Your task to perform on an android device: star an email in the gmail app Image 0: 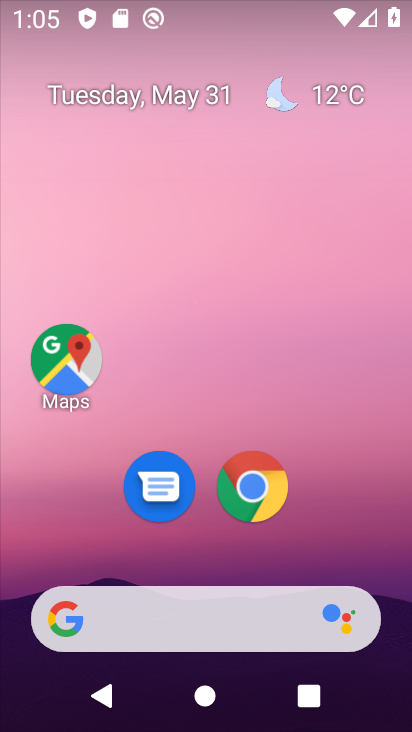
Step 0: drag from (196, 549) to (171, 183)
Your task to perform on an android device: star an email in the gmail app Image 1: 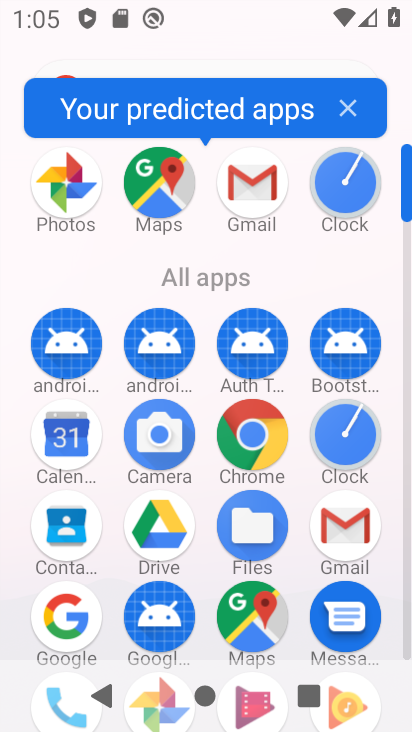
Step 1: click (244, 185)
Your task to perform on an android device: star an email in the gmail app Image 2: 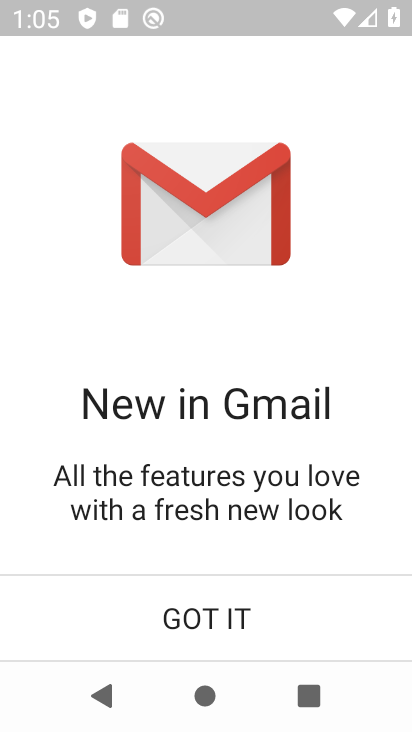
Step 2: click (197, 635)
Your task to perform on an android device: star an email in the gmail app Image 3: 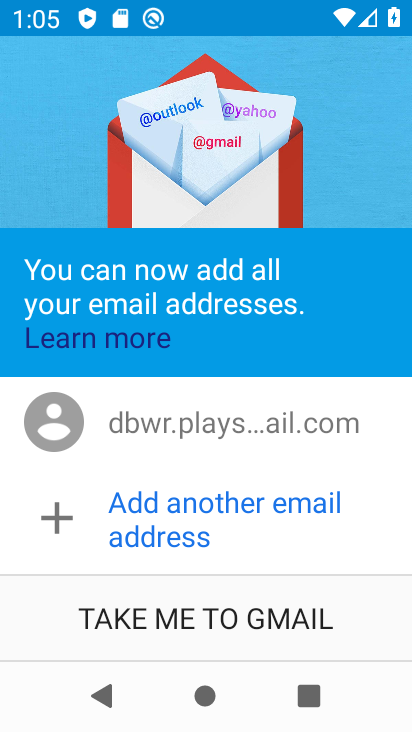
Step 3: click (191, 610)
Your task to perform on an android device: star an email in the gmail app Image 4: 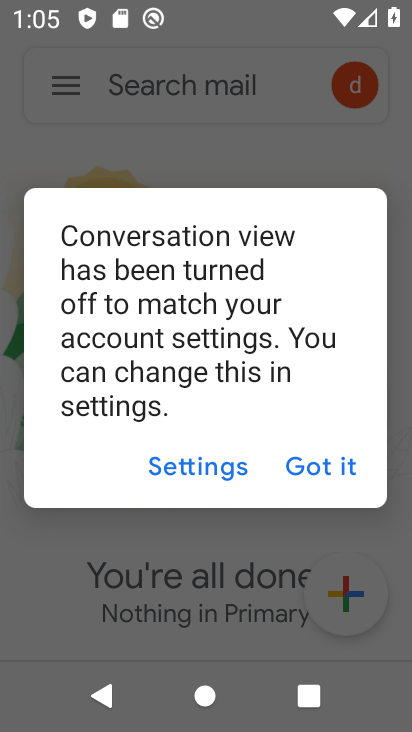
Step 4: click (315, 458)
Your task to perform on an android device: star an email in the gmail app Image 5: 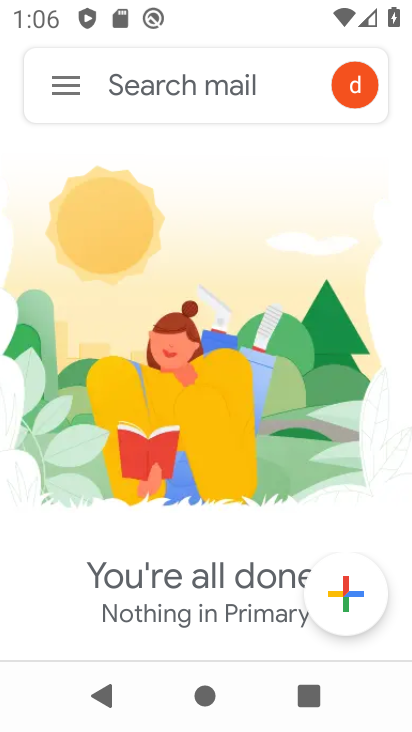
Step 5: click (56, 94)
Your task to perform on an android device: star an email in the gmail app Image 6: 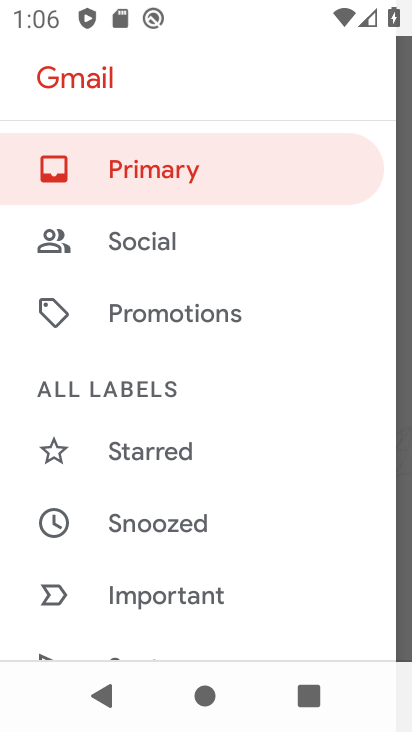
Step 6: drag from (162, 574) to (203, 207)
Your task to perform on an android device: star an email in the gmail app Image 7: 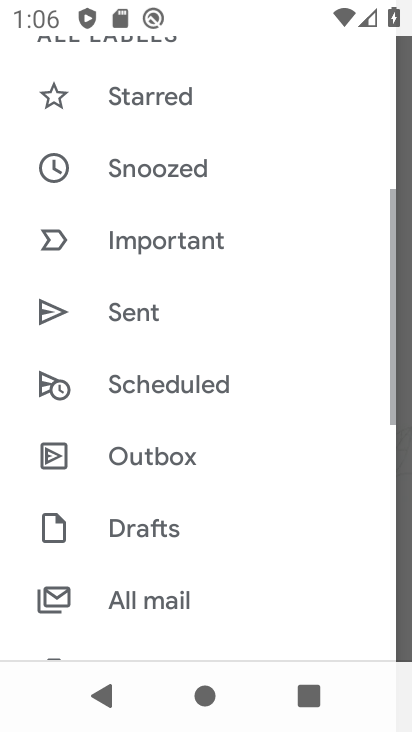
Step 7: click (175, 609)
Your task to perform on an android device: star an email in the gmail app Image 8: 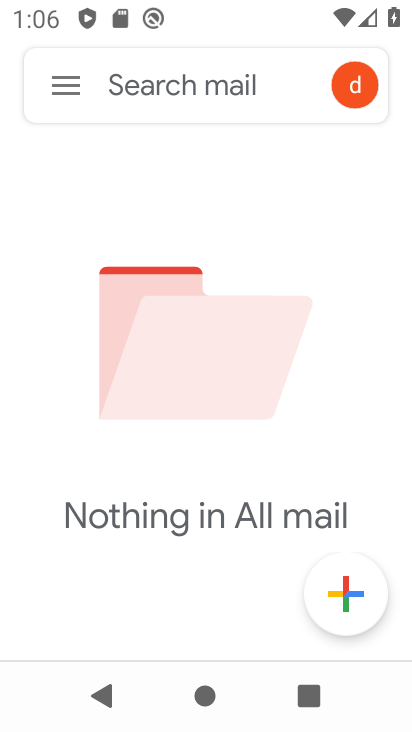
Step 8: task complete